Your task to perform on an android device: Search for sushi restaurants on Maps Image 0: 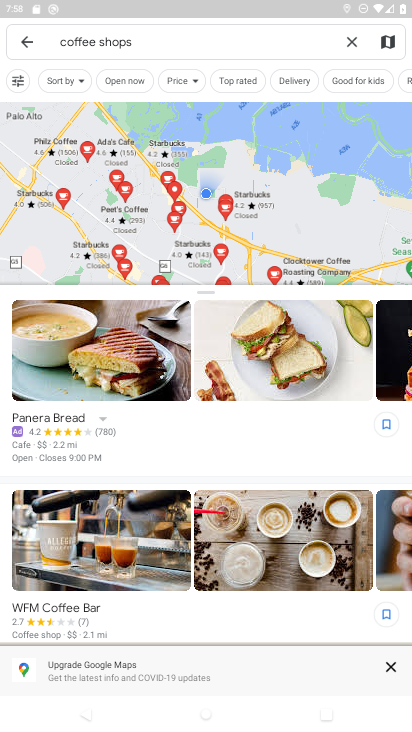
Step 0: press home button
Your task to perform on an android device: Search for sushi restaurants on Maps Image 1: 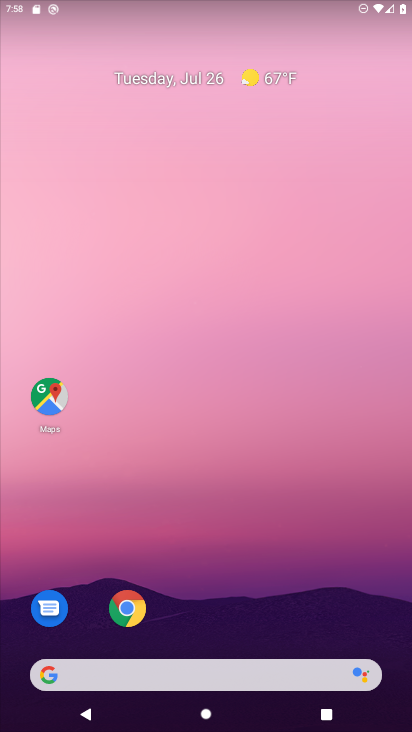
Step 1: click (44, 412)
Your task to perform on an android device: Search for sushi restaurants on Maps Image 2: 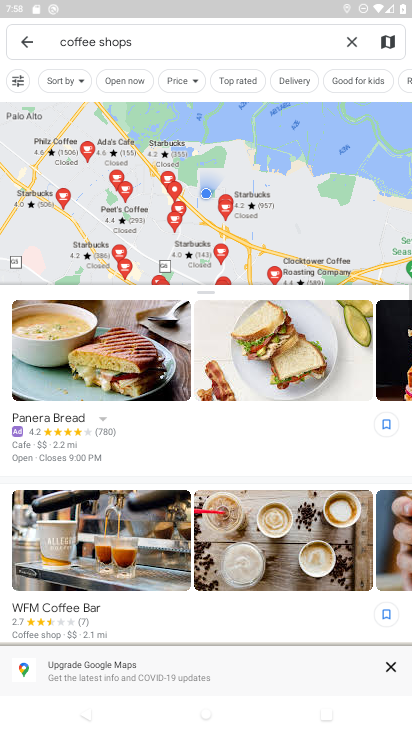
Step 2: click (353, 35)
Your task to perform on an android device: Search for sushi restaurants on Maps Image 3: 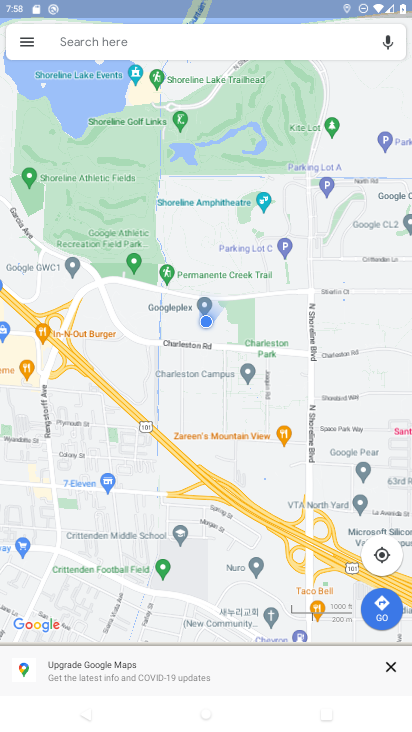
Step 3: click (196, 45)
Your task to perform on an android device: Search for sushi restaurants on Maps Image 4: 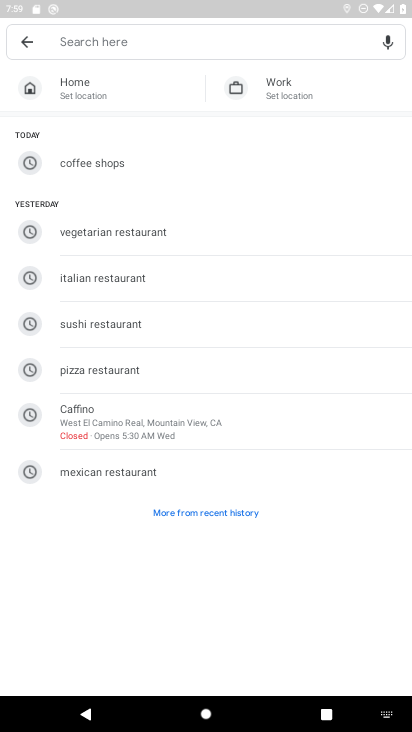
Step 4: type "Sushi restaurants"
Your task to perform on an android device: Search for sushi restaurants on Maps Image 5: 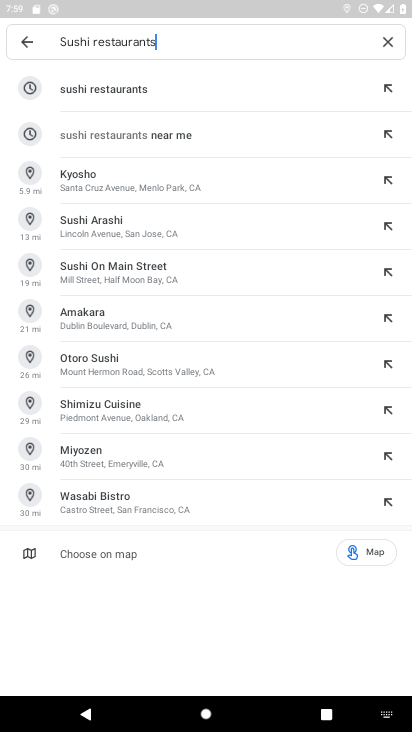
Step 5: click (116, 84)
Your task to perform on an android device: Search for sushi restaurants on Maps Image 6: 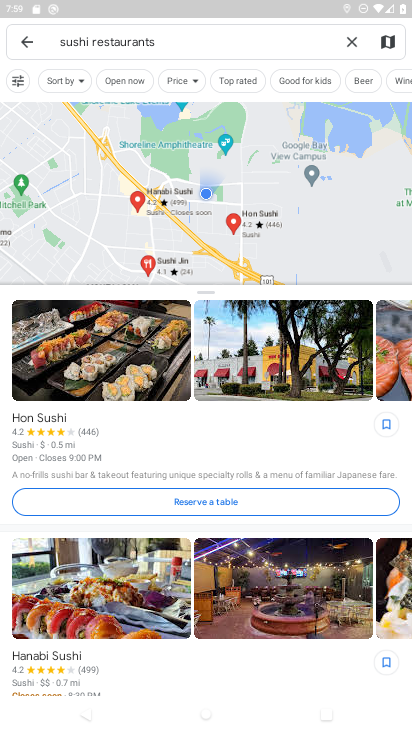
Step 6: task complete